Your task to perform on an android device: allow cookies in the chrome app Image 0: 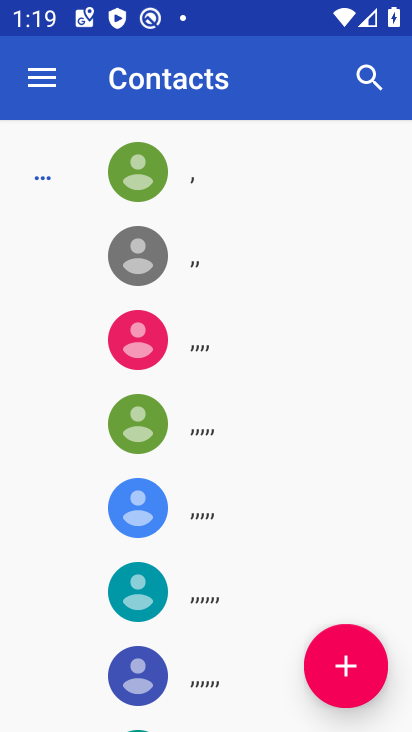
Step 0: press home button
Your task to perform on an android device: allow cookies in the chrome app Image 1: 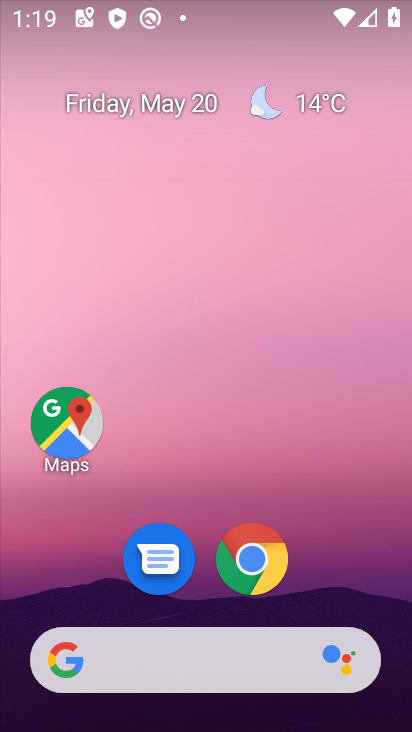
Step 1: click (250, 579)
Your task to perform on an android device: allow cookies in the chrome app Image 2: 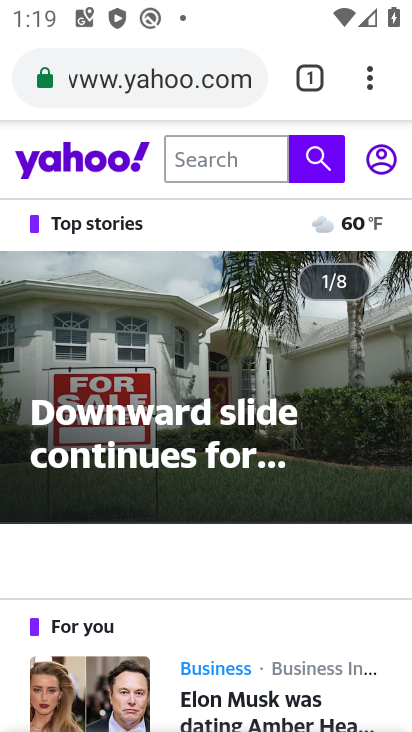
Step 2: click (359, 75)
Your task to perform on an android device: allow cookies in the chrome app Image 3: 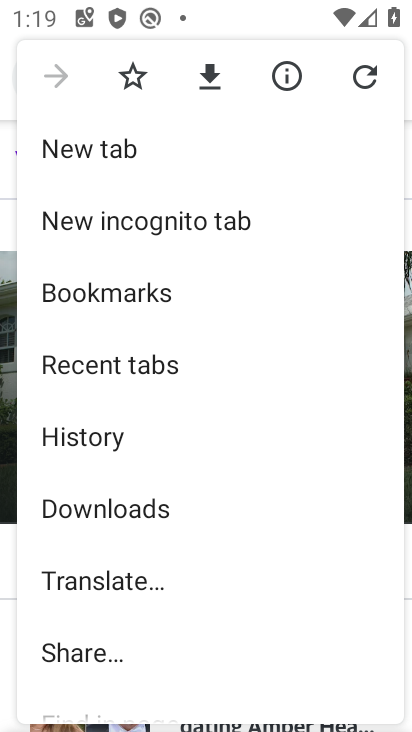
Step 3: drag from (140, 510) to (181, 247)
Your task to perform on an android device: allow cookies in the chrome app Image 4: 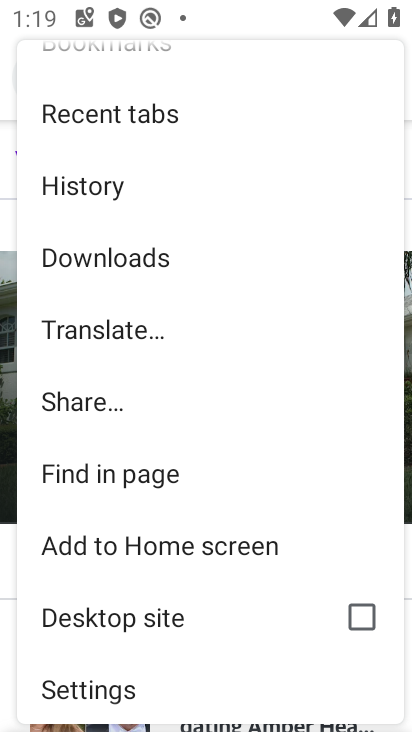
Step 4: click (118, 677)
Your task to perform on an android device: allow cookies in the chrome app Image 5: 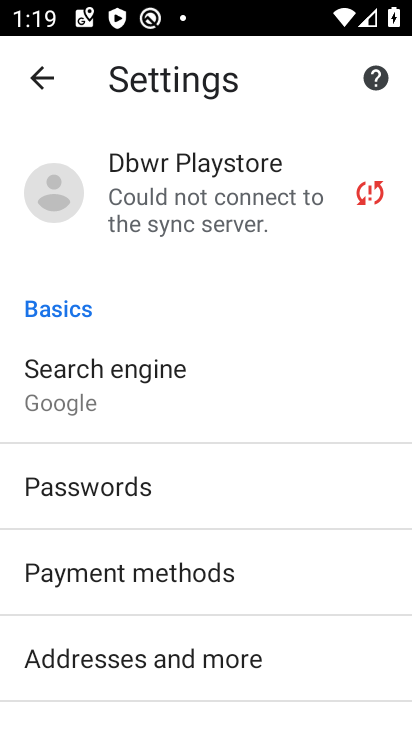
Step 5: task complete